Your task to perform on an android device: turn notification dots on Image 0: 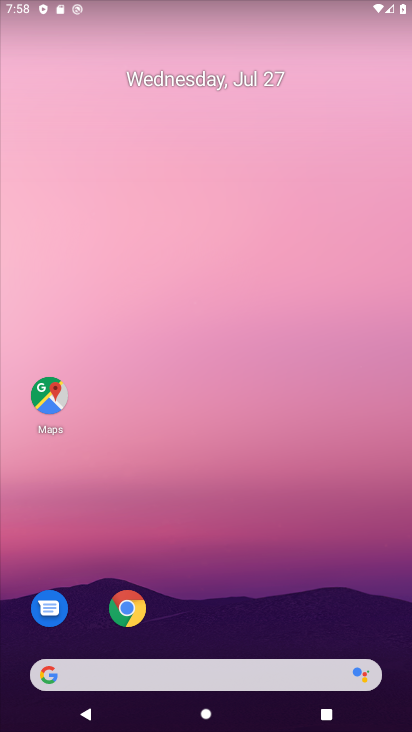
Step 0: drag from (261, 655) to (175, 201)
Your task to perform on an android device: turn notification dots on Image 1: 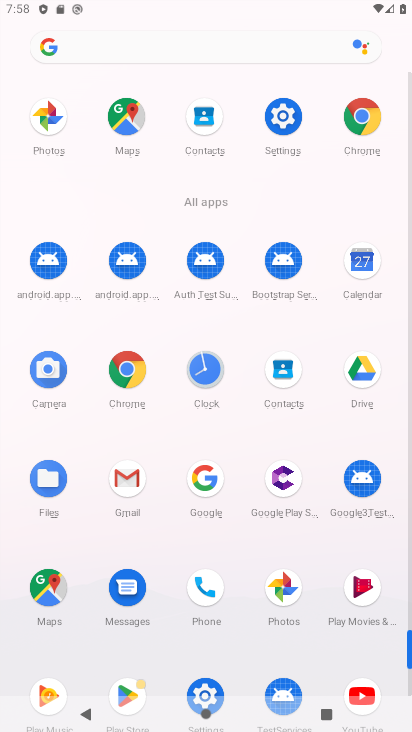
Step 1: drag from (302, 519) to (266, 155)
Your task to perform on an android device: turn notification dots on Image 2: 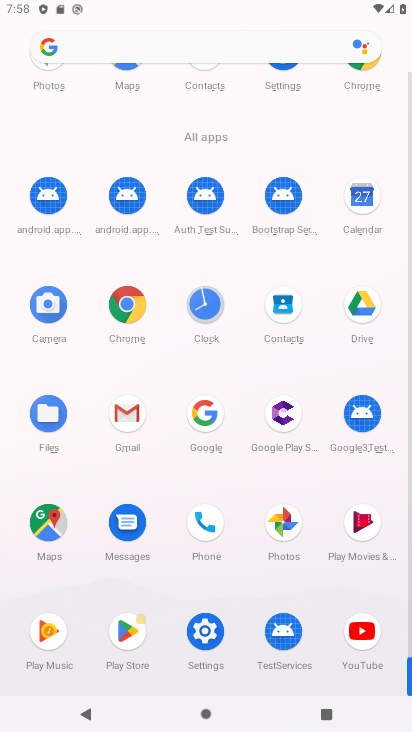
Step 2: click (206, 642)
Your task to perform on an android device: turn notification dots on Image 3: 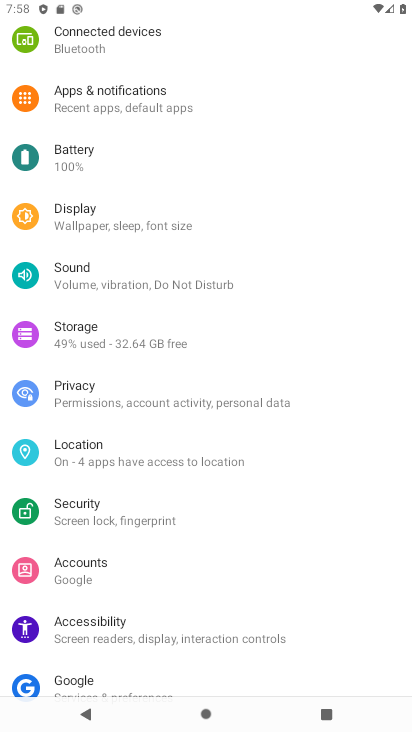
Step 3: click (113, 103)
Your task to perform on an android device: turn notification dots on Image 4: 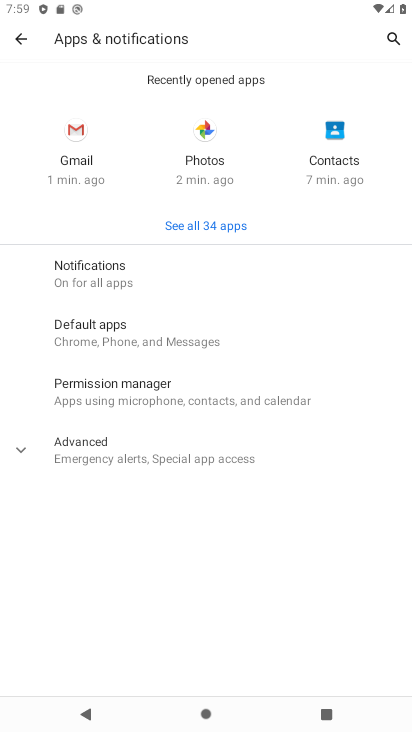
Step 4: press home button
Your task to perform on an android device: turn notification dots on Image 5: 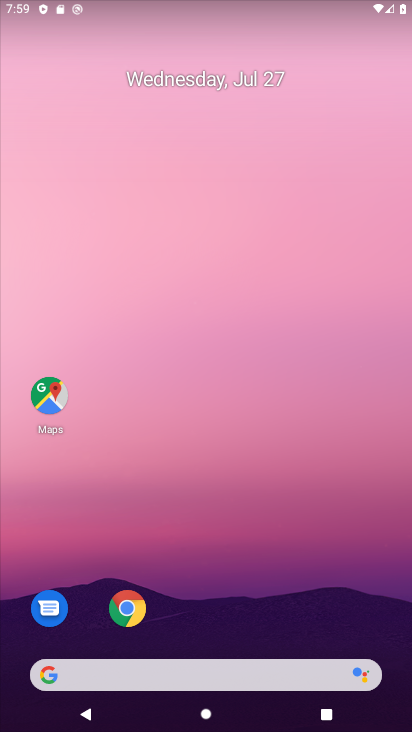
Step 5: drag from (340, 572) to (326, 148)
Your task to perform on an android device: turn notification dots on Image 6: 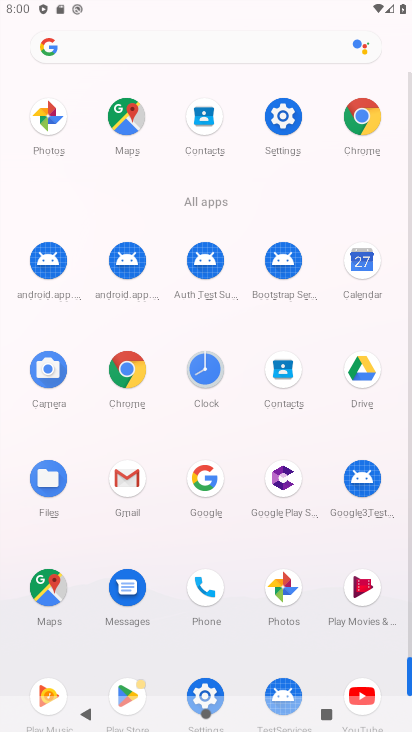
Step 6: click (281, 99)
Your task to perform on an android device: turn notification dots on Image 7: 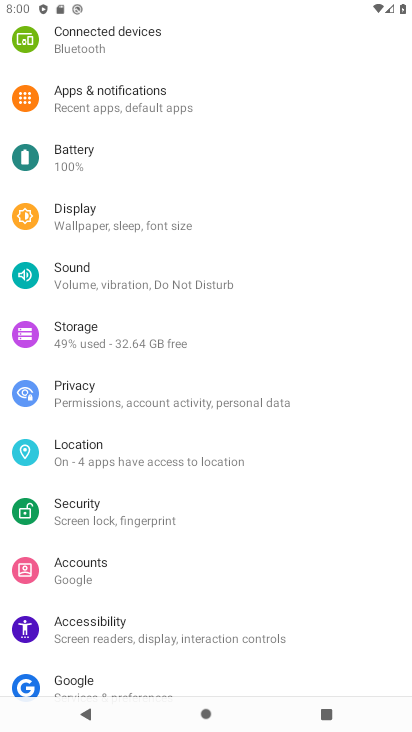
Step 7: task complete